Your task to perform on an android device: Open the calendar and show me this week's events? Image 0: 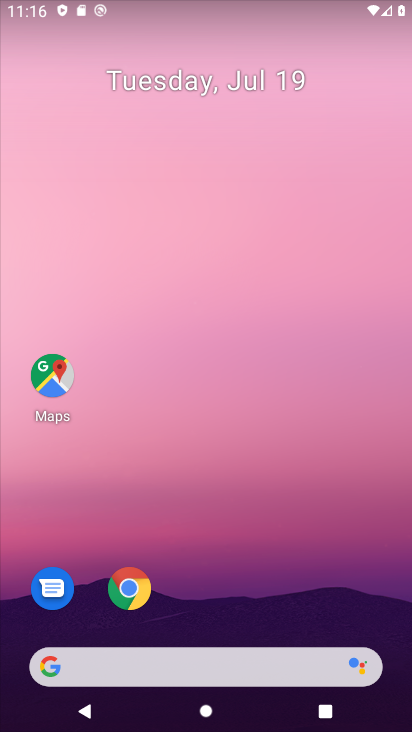
Step 0: drag from (398, 607) to (198, 38)
Your task to perform on an android device: Open the calendar and show me this week's events? Image 1: 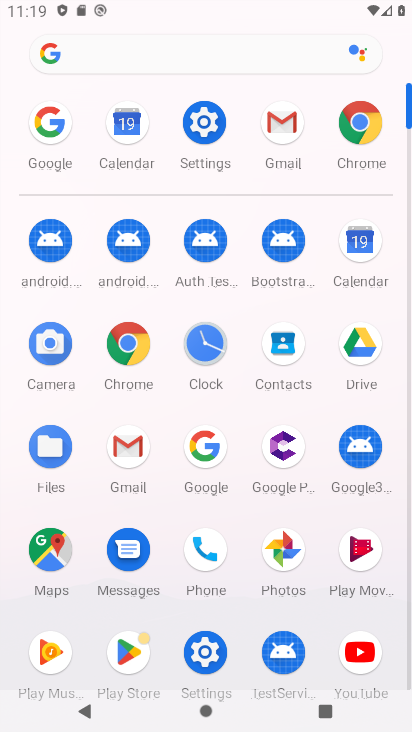
Step 1: click (371, 236)
Your task to perform on an android device: Open the calendar and show me this week's events? Image 2: 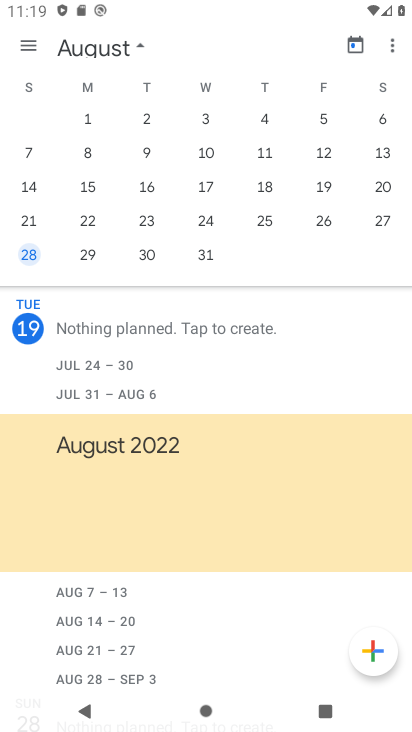
Step 2: task complete